Your task to perform on an android device: Open Youtube and go to the subscriptions tab Image 0: 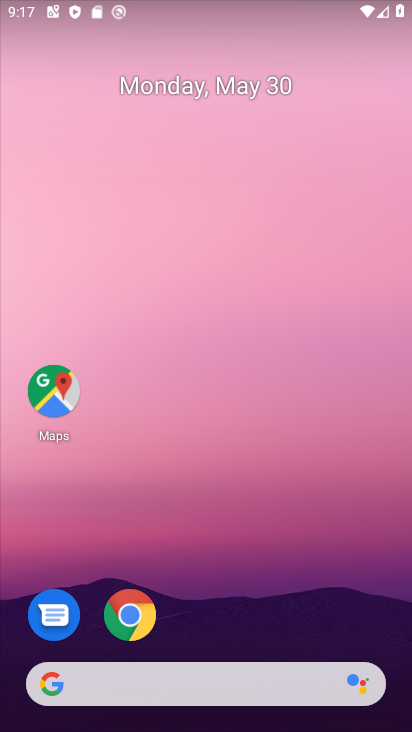
Step 0: drag from (285, 604) to (225, 0)
Your task to perform on an android device: Open Youtube and go to the subscriptions tab Image 1: 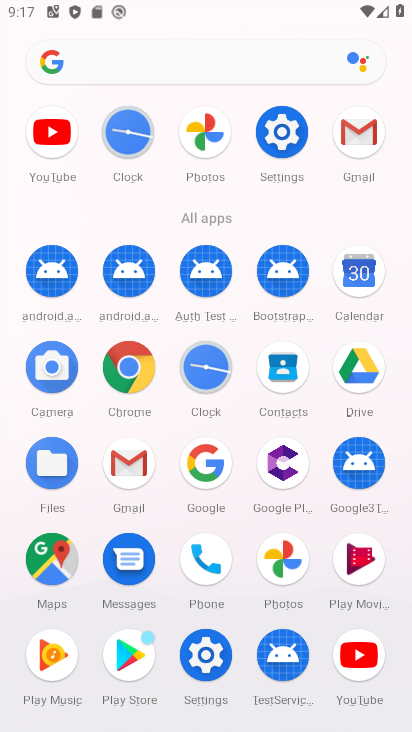
Step 1: click (366, 644)
Your task to perform on an android device: Open Youtube and go to the subscriptions tab Image 2: 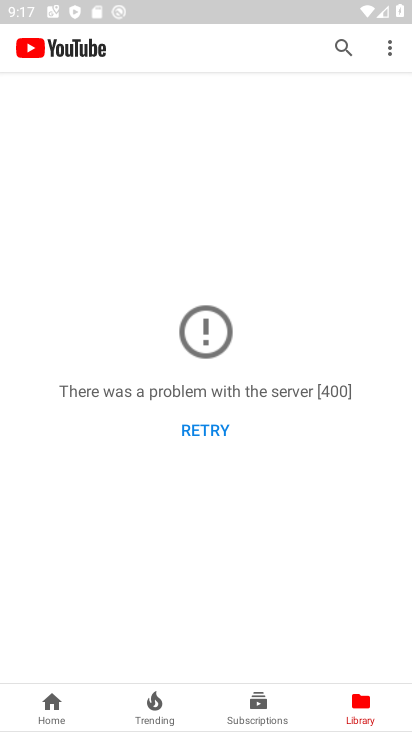
Step 2: click (253, 707)
Your task to perform on an android device: Open Youtube and go to the subscriptions tab Image 3: 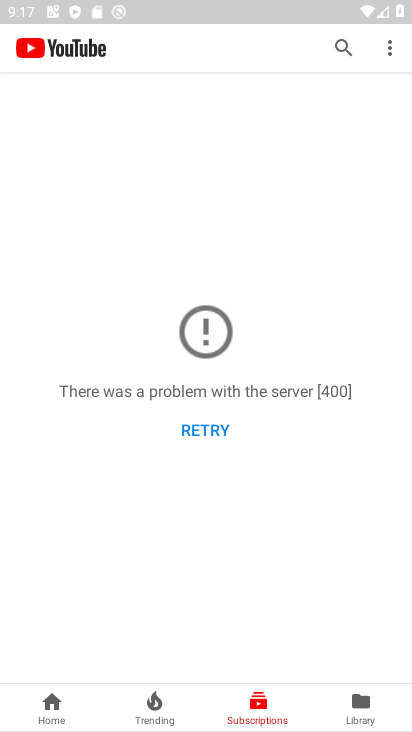
Step 3: task complete